Your task to perform on an android device: check the backup settings in the google photos Image 0: 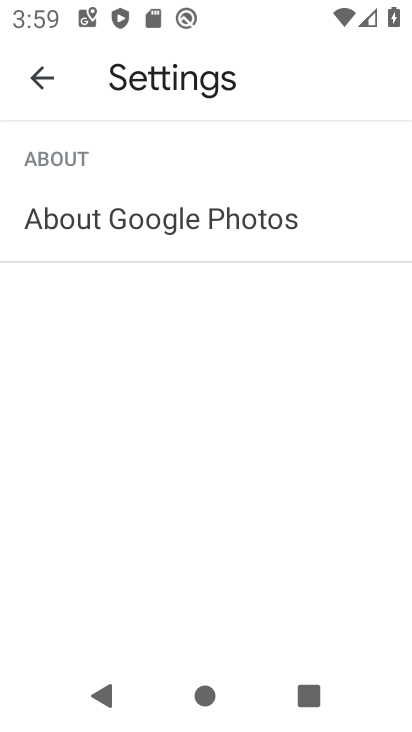
Step 0: press home button
Your task to perform on an android device: check the backup settings in the google photos Image 1: 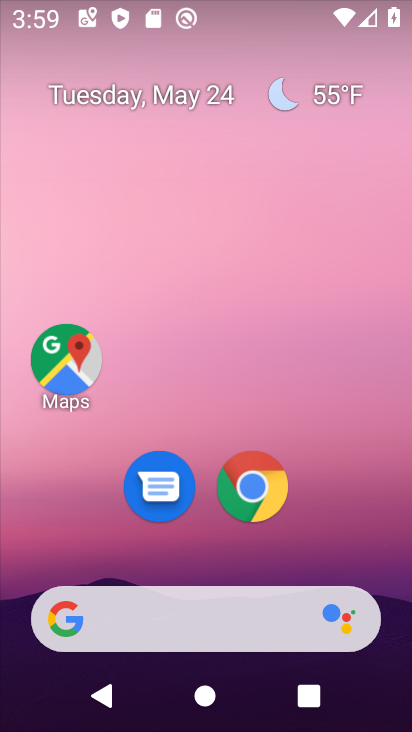
Step 1: drag from (296, 520) to (214, 103)
Your task to perform on an android device: check the backup settings in the google photos Image 2: 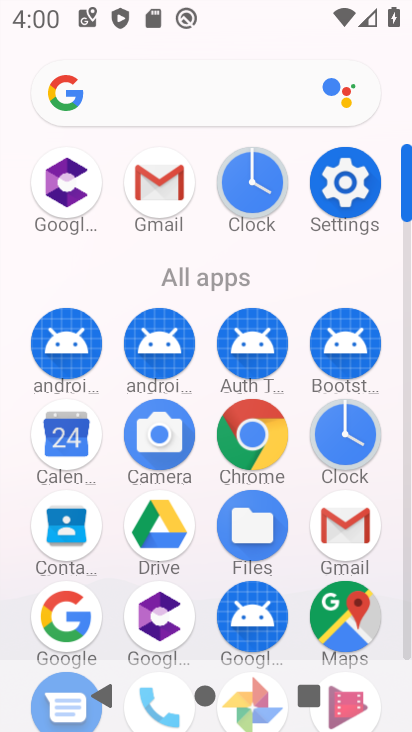
Step 2: drag from (286, 644) to (276, 318)
Your task to perform on an android device: check the backup settings in the google photos Image 3: 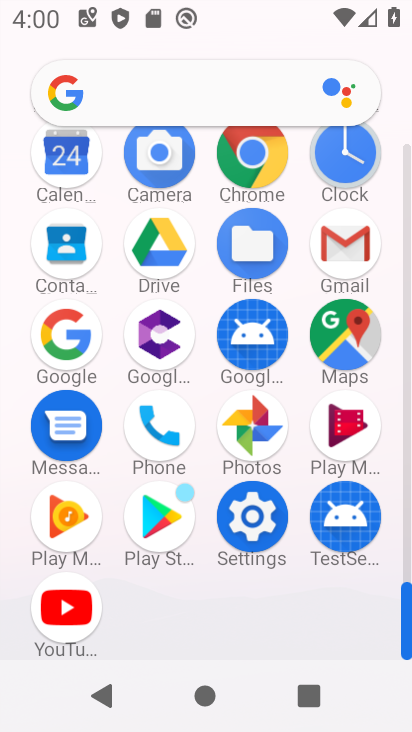
Step 3: click (273, 428)
Your task to perform on an android device: check the backup settings in the google photos Image 4: 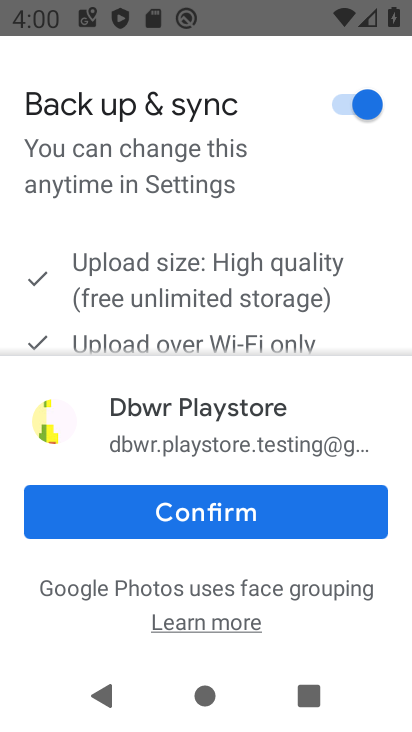
Step 4: click (180, 495)
Your task to perform on an android device: check the backup settings in the google photos Image 5: 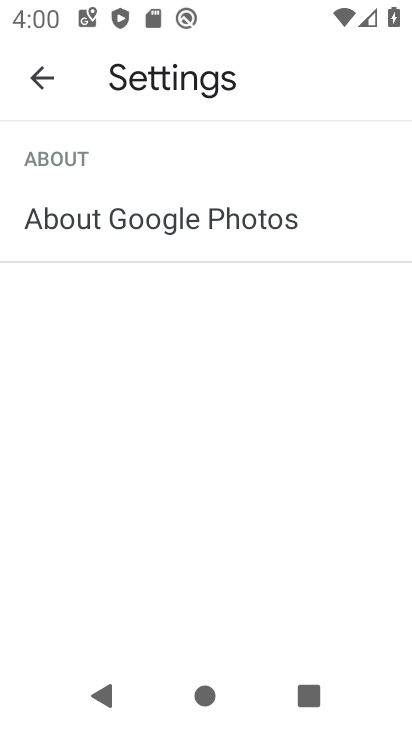
Step 5: click (44, 82)
Your task to perform on an android device: check the backup settings in the google photos Image 6: 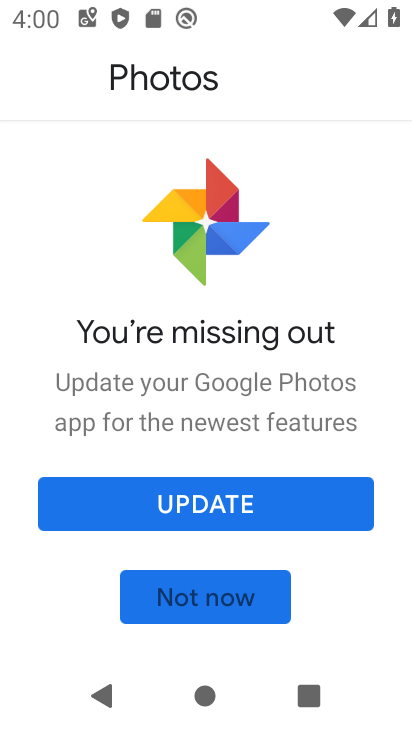
Step 6: click (208, 508)
Your task to perform on an android device: check the backup settings in the google photos Image 7: 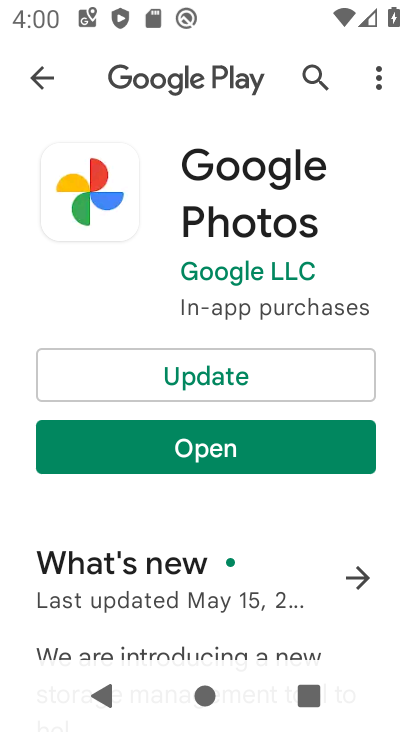
Step 7: click (223, 363)
Your task to perform on an android device: check the backup settings in the google photos Image 8: 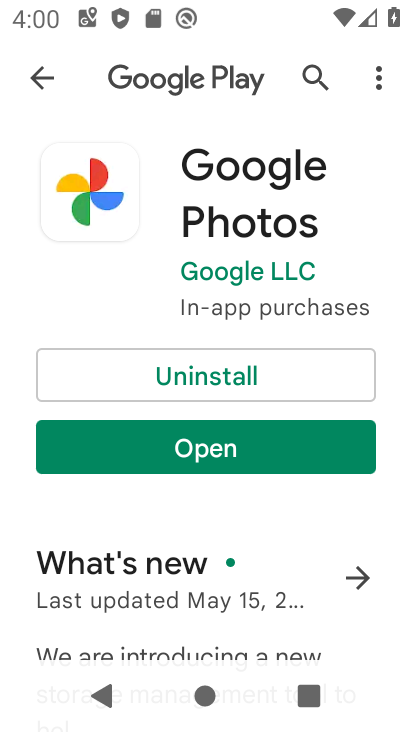
Step 8: click (293, 453)
Your task to perform on an android device: check the backup settings in the google photos Image 9: 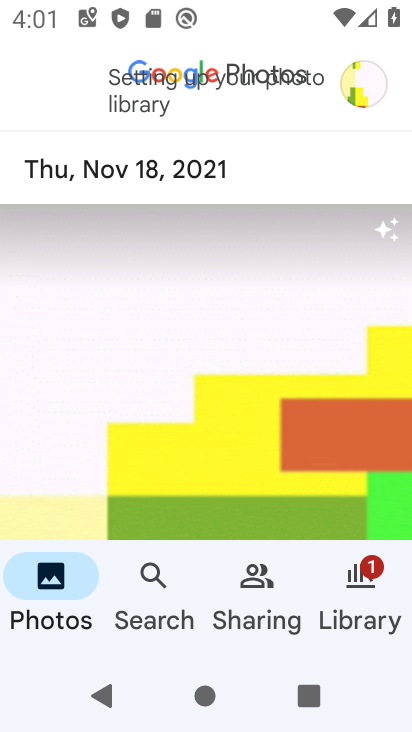
Step 9: click (363, 74)
Your task to perform on an android device: check the backup settings in the google photos Image 10: 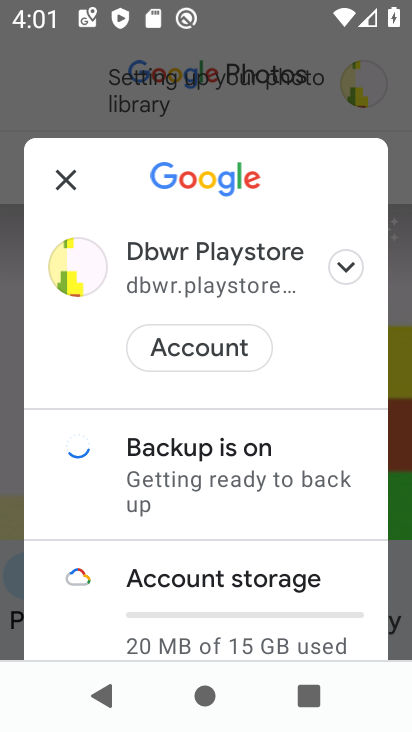
Step 10: drag from (231, 486) to (226, 285)
Your task to perform on an android device: check the backup settings in the google photos Image 11: 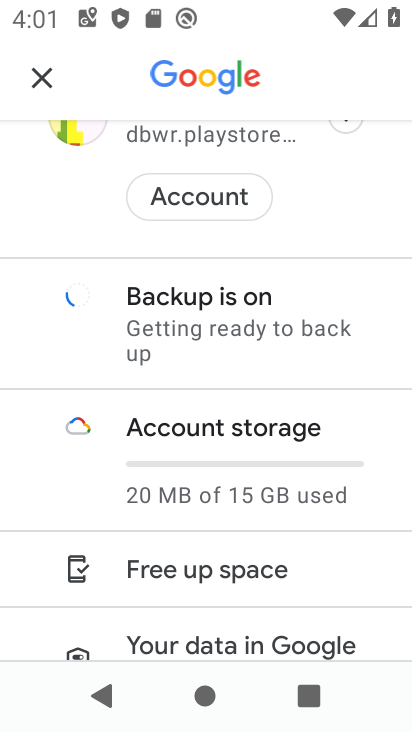
Step 11: drag from (197, 492) to (207, 307)
Your task to perform on an android device: check the backup settings in the google photos Image 12: 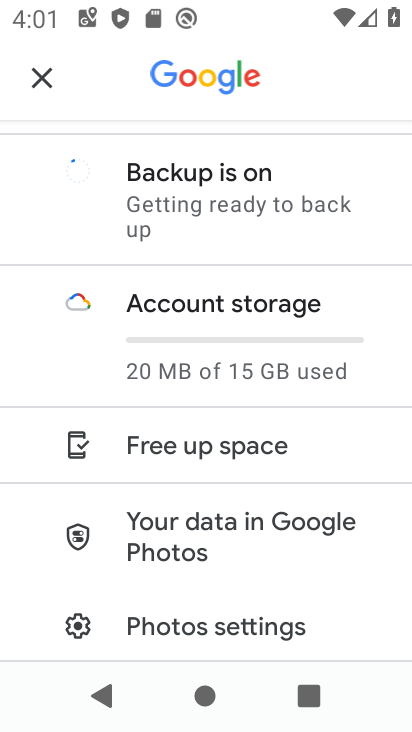
Step 12: drag from (187, 610) to (171, 315)
Your task to perform on an android device: check the backup settings in the google photos Image 13: 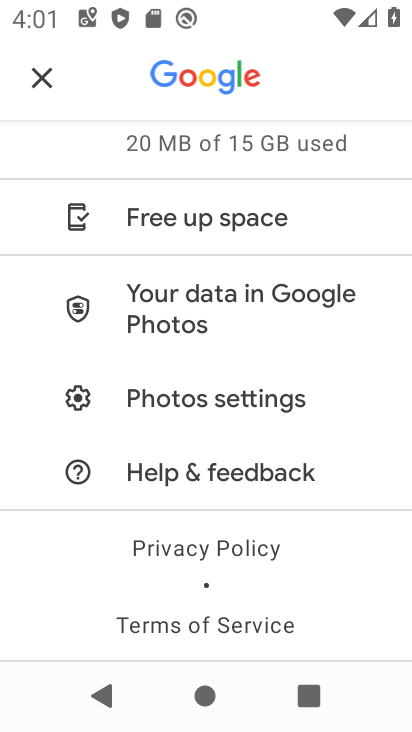
Step 13: drag from (209, 215) to (233, 410)
Your task to perform on an android device: check the backup settings in the google photos Image 14: 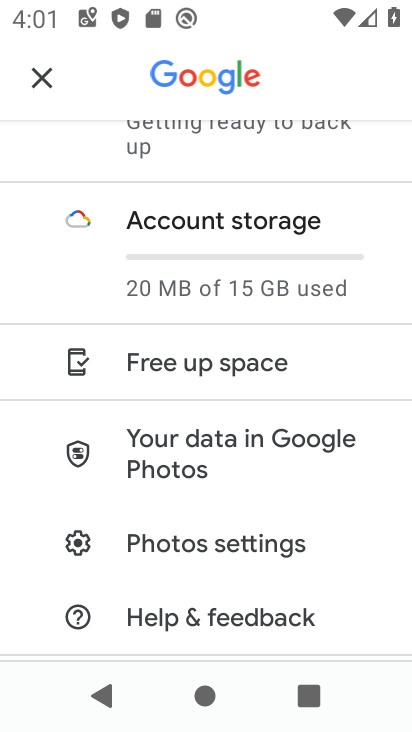
Step 14: drag from (293, 242) to (247, 545)
Your task to perform on an android device: check the backup settings in the google photos Image 15: 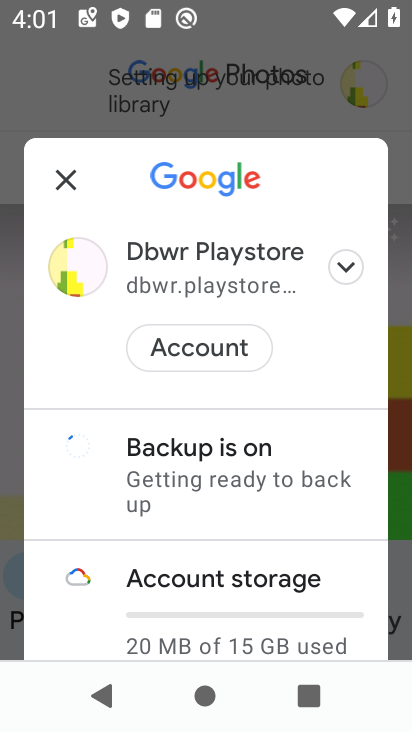
Step 15: drag from (186, 486) to (177, 240)
Your task to perform on an android device: check the backup settings in the google photos Image 16: 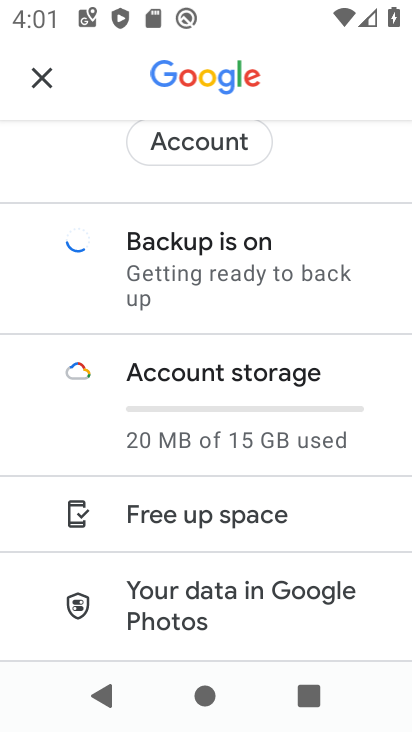
Step 16: drag from (195, 505) to (196, 310)
Your task to perform on an android device: check the backup settings in the google photos Image 17: 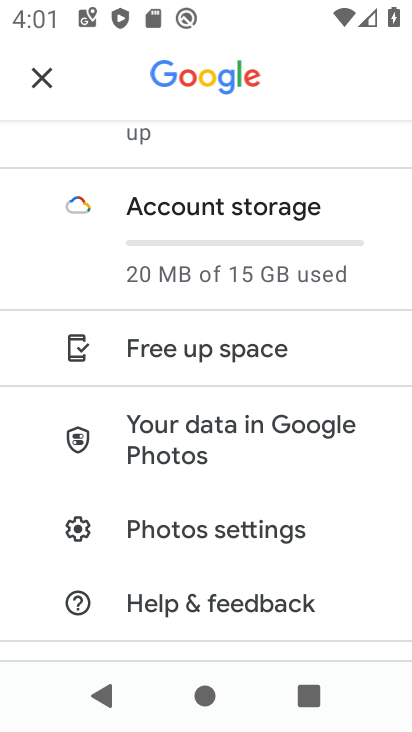
Step 17: click (205, 535)
Your task to perform on an android device: check the backup settings in the google photos Image 18: 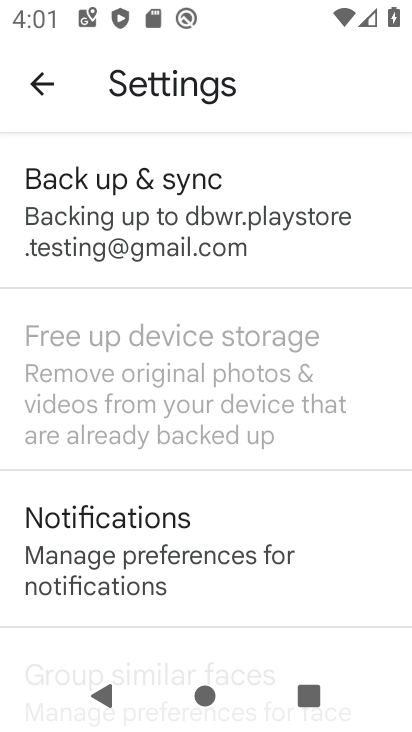
Step 18: click (190, 189)
Your task to perform on an android device: check the backup settings in the google photos Image 19: 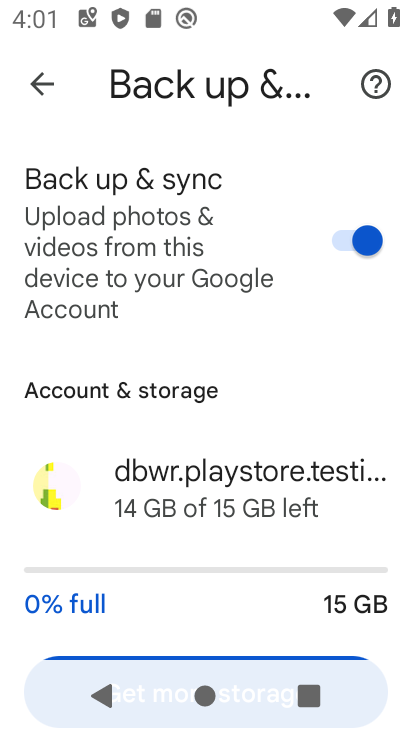
Step 19: task complete